Your task to perform on an android device: find which apps use the phone's location Image 0: 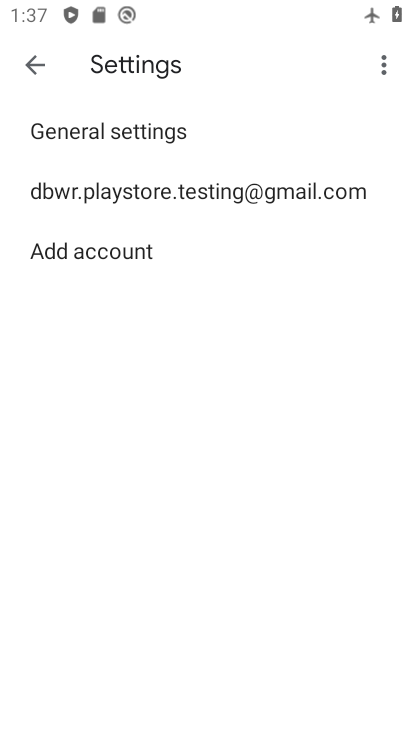
Step 0: press home button
Your task to perform on an android device: find which apps use the phone's location Image 1: 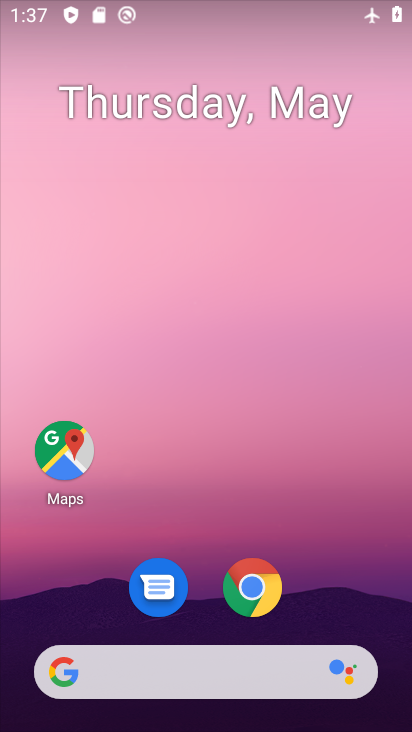
Step 1: drag from (316, 581) to (160, 42)
Your task to perform on an android device: find which apps use the phone's location Image 2: 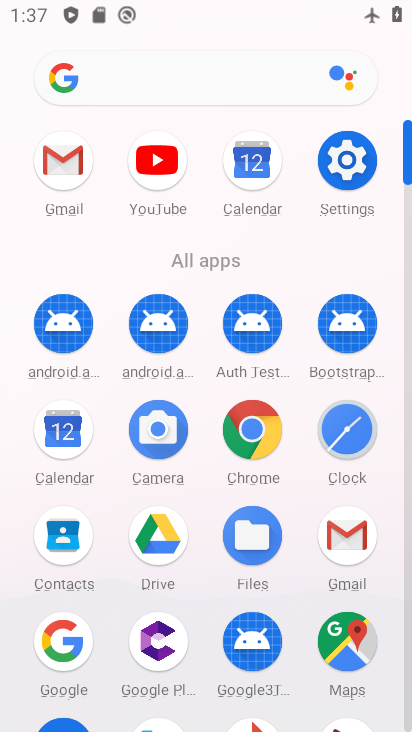
Step 2: click (349, 156)
Your task to perform on an android device: find which apps use the phone's location Image 3: 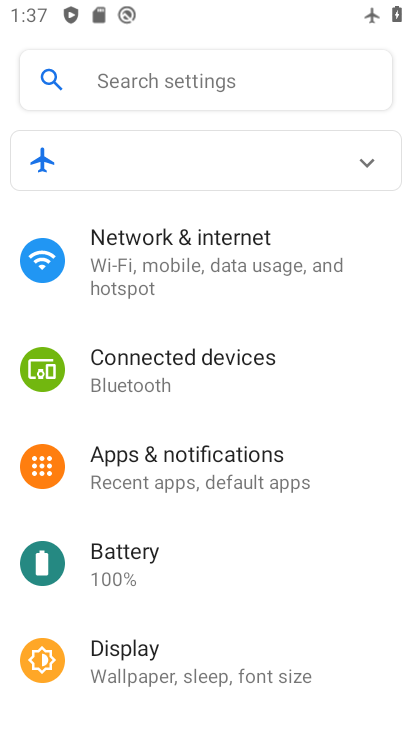
Step 3: drag from (194, 578) to (143, 302)
Your task to perform on an android device: find which apps use the phone's location Image 4: 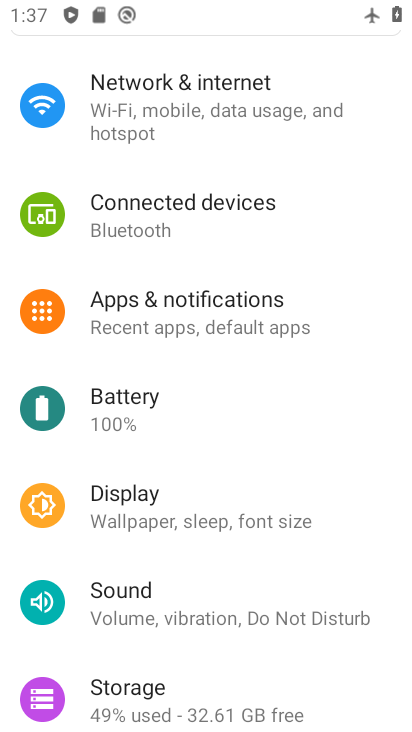
Step 4: drag from (183, 560) to (144, 316)
Your task to perform on an android device: find which apps use the phone's location Image 5: 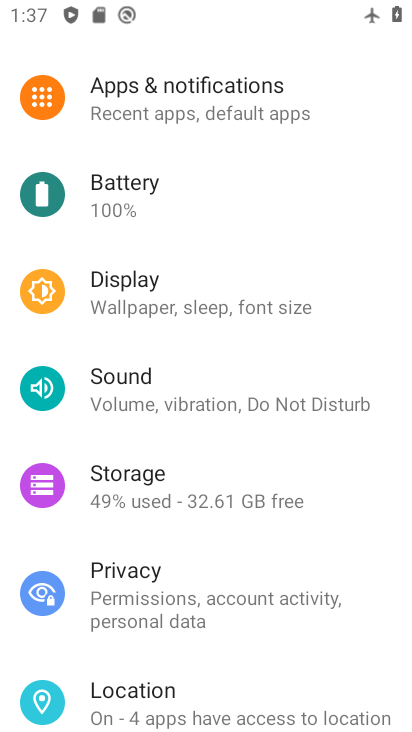
Step 5: click (141, 688)
Your task to perform on an android device: find which apps use the phone's location Image 6: 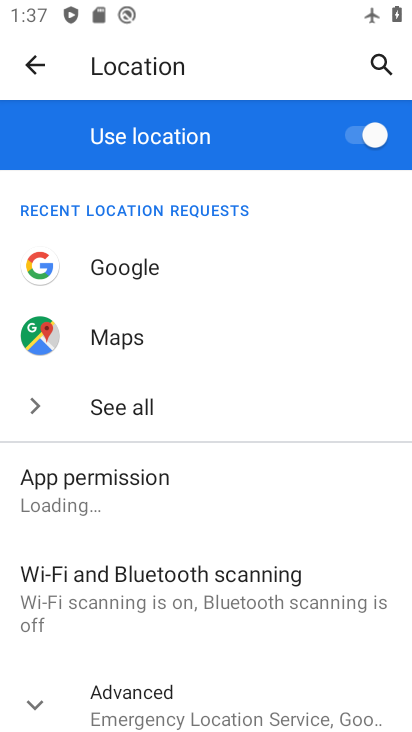
Step 6: click (119, 413)
Your task to perform on an android device: find which apps use the phone's location Image 7: 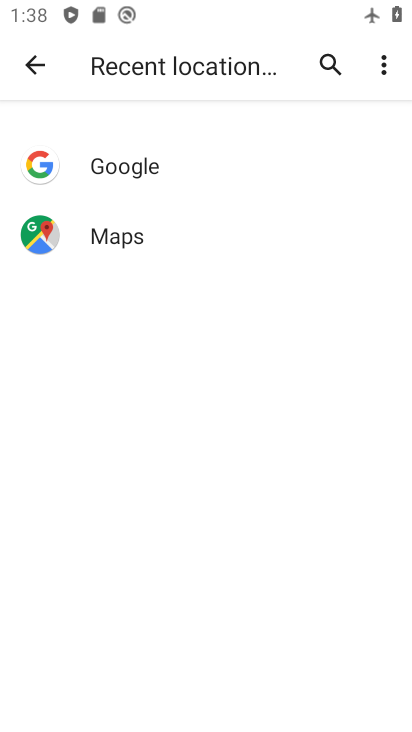
Step 7: task complete